Your task to perform on an android device: change notifications settings Image 0: 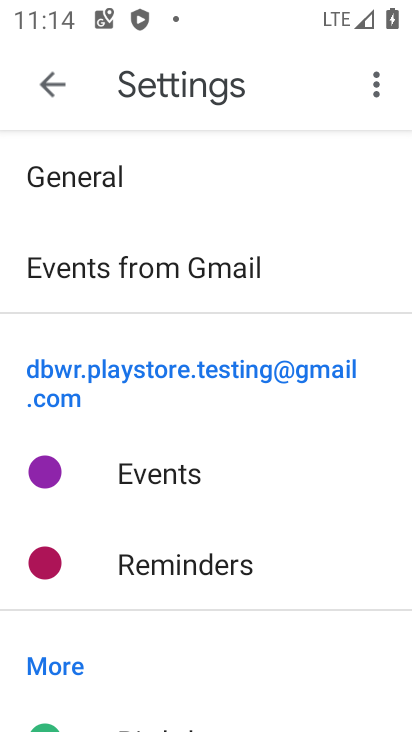
Step 0: press home button
Your task to perform on an android device: change notifications settings Image 1: 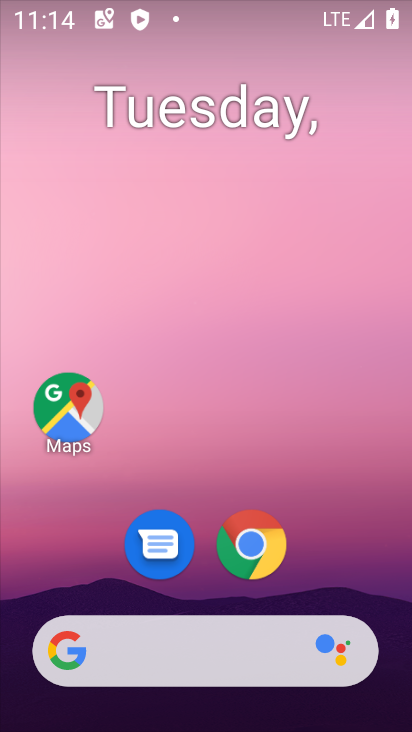
Step 1: drag from (381, 619) to (274, 102)
Your task to perform on an android device: change notifications settings Image 2: 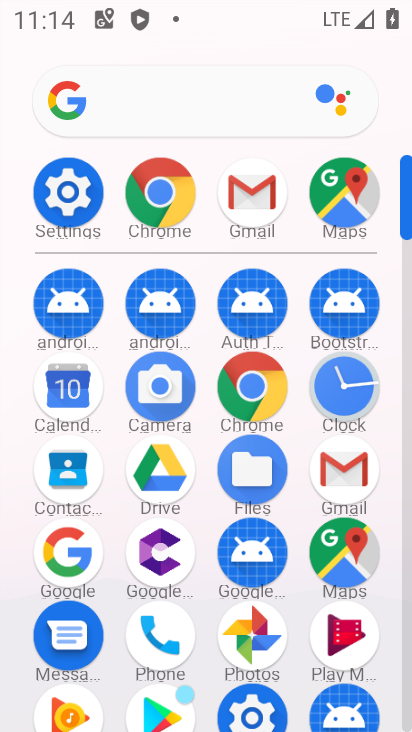
Step 2: click (75, 203)
Your task to perform on an android device: change notifications settings Image 3: 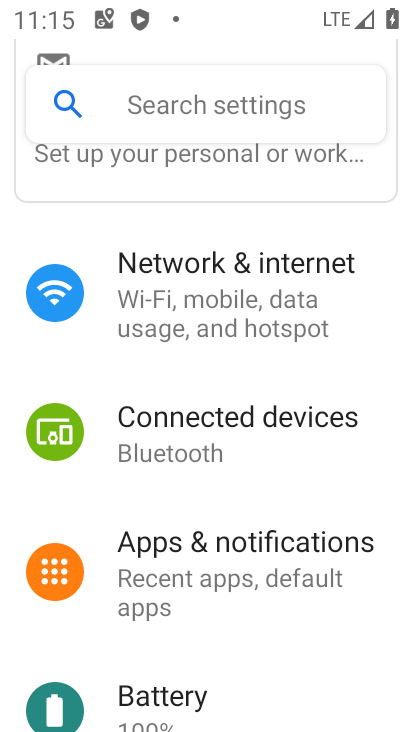
Step 3: click (256, 569)
Your task to perform on an android device: change notifications settings Image 4: 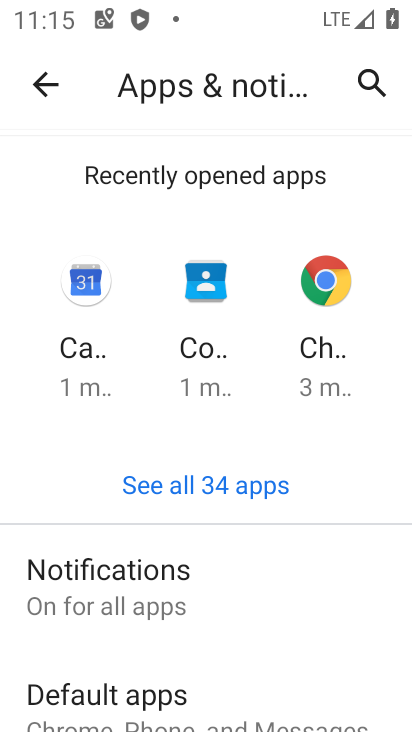
Step 4: click (220, 589)
Your task to perform on an android device: change notifications settings Image 5: 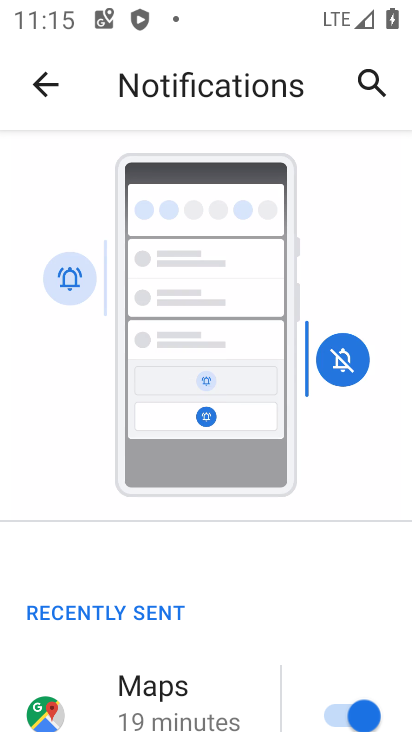
Step 5: task complete